Your task to perform on an android device: empty trash in google photos Image 0: 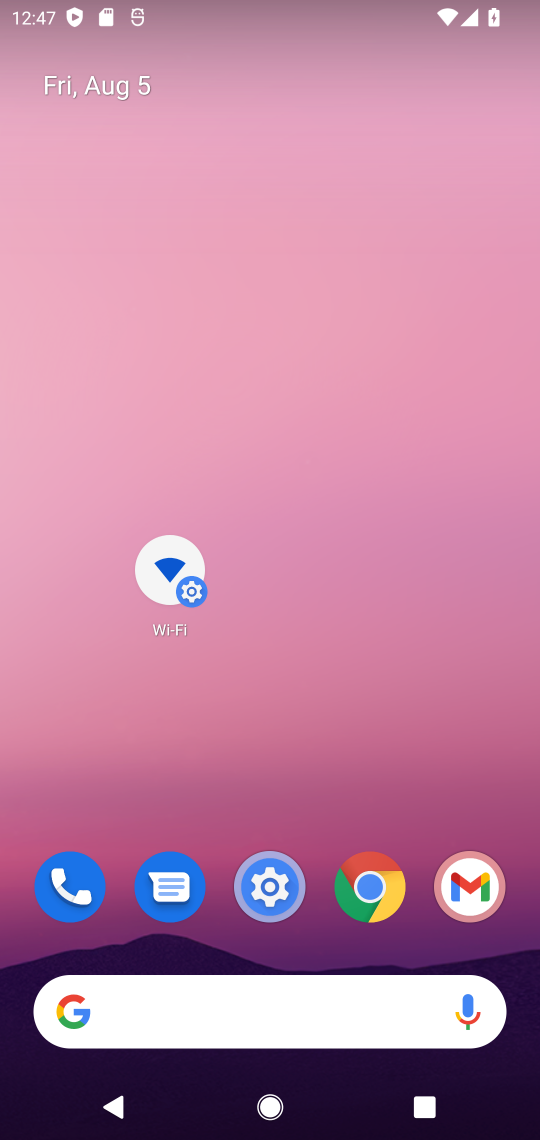
Step 0: drag from (352, 972) to (337, 38)
Your task to perform on an android device: empty trash in google photos Image 1: 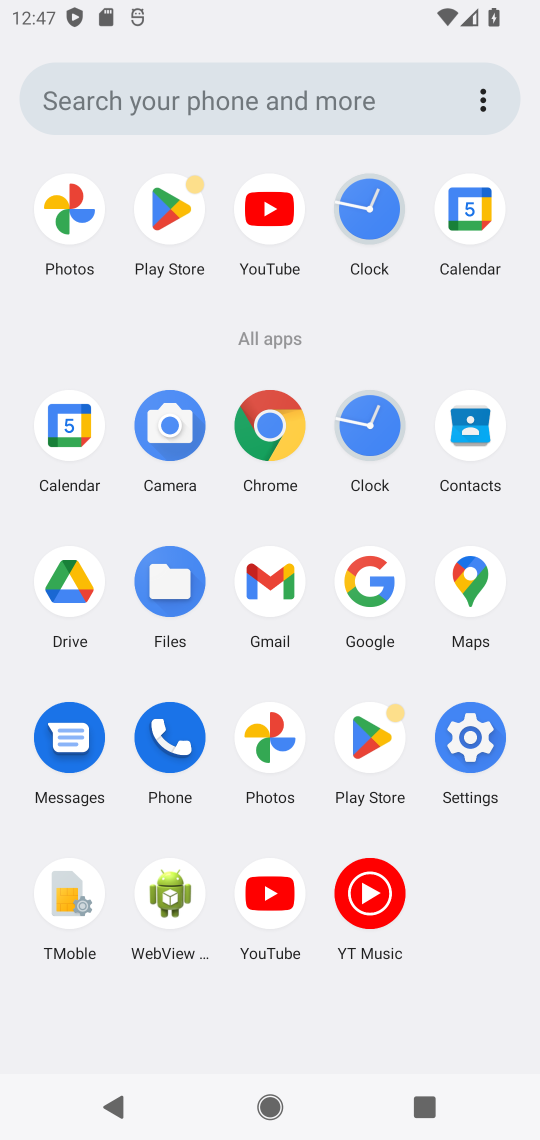
Step 1: click (271, 751)
Your task to perform on an android device: empty trash in google photos Image 2: 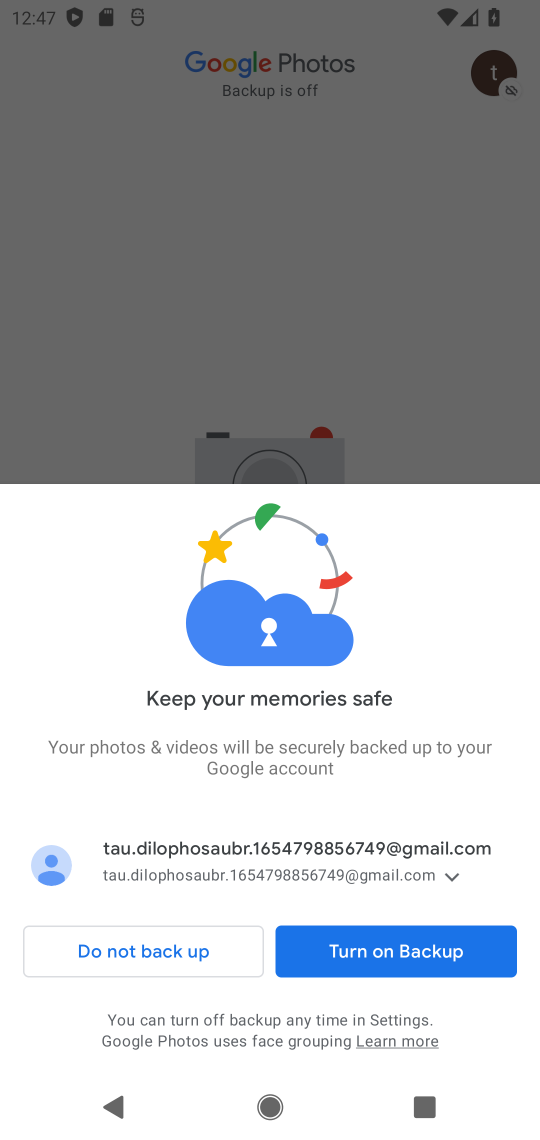
Step 2: click (383, 972)
Your task to perform on an android device: empty trash in google photos Image 3: 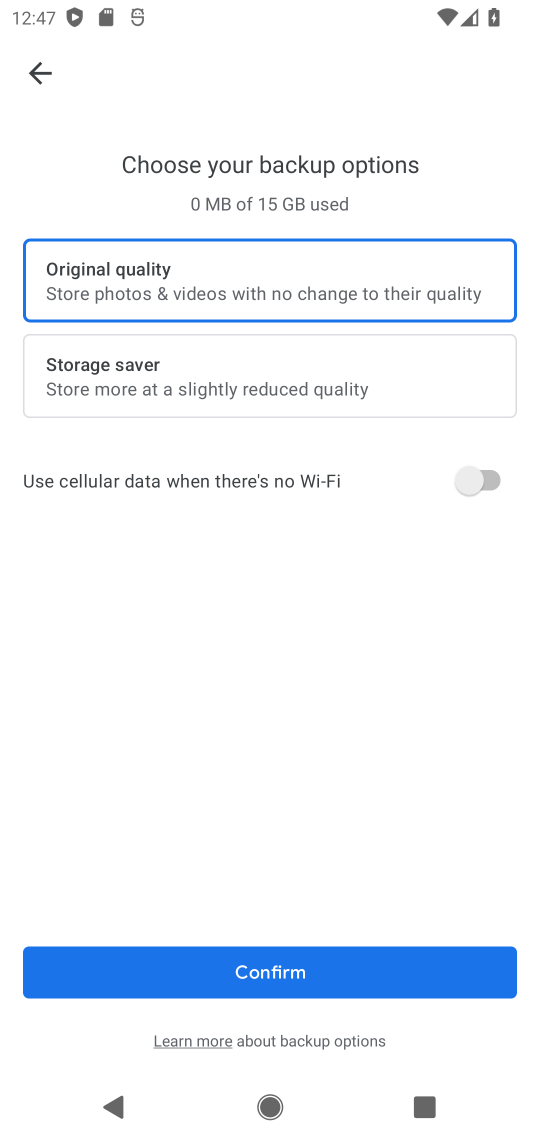
Step 3: click (224, 962)
Your task to perform on an android device: empty trash in google photos Image 4: 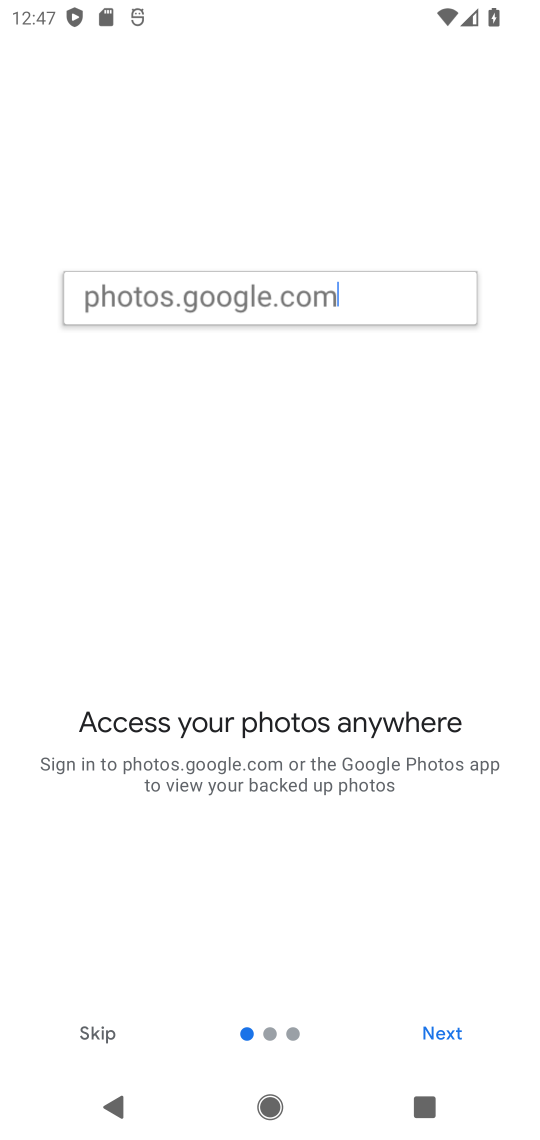
Step 4: click (95, 1027)
Your task to perform on an android device: empty trash in google photos Image 5: 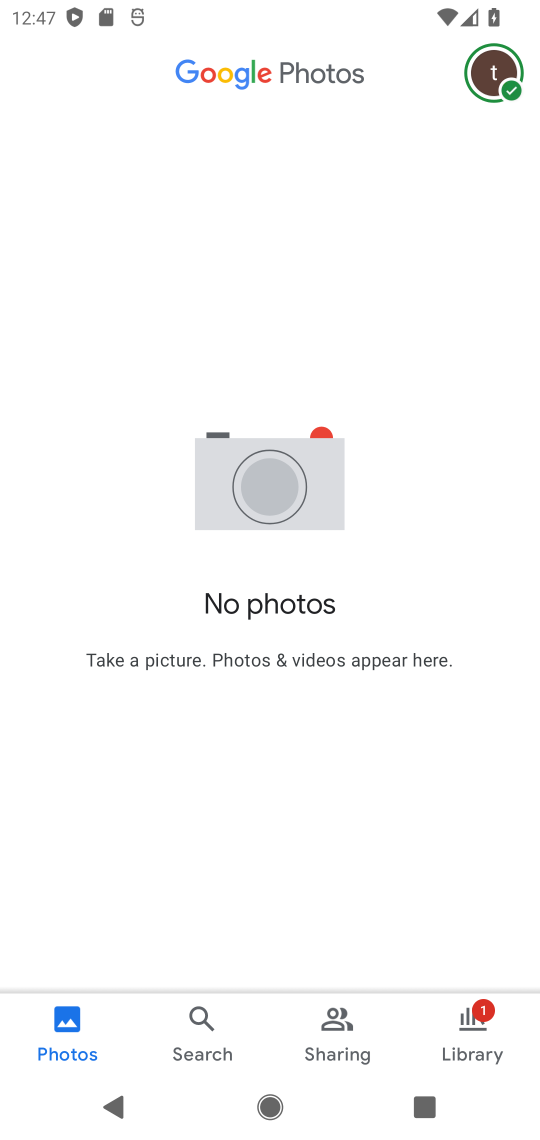
Step 5: click (452, 1033)
Your task to perform on an android device: empty trash in google photos Image 6: 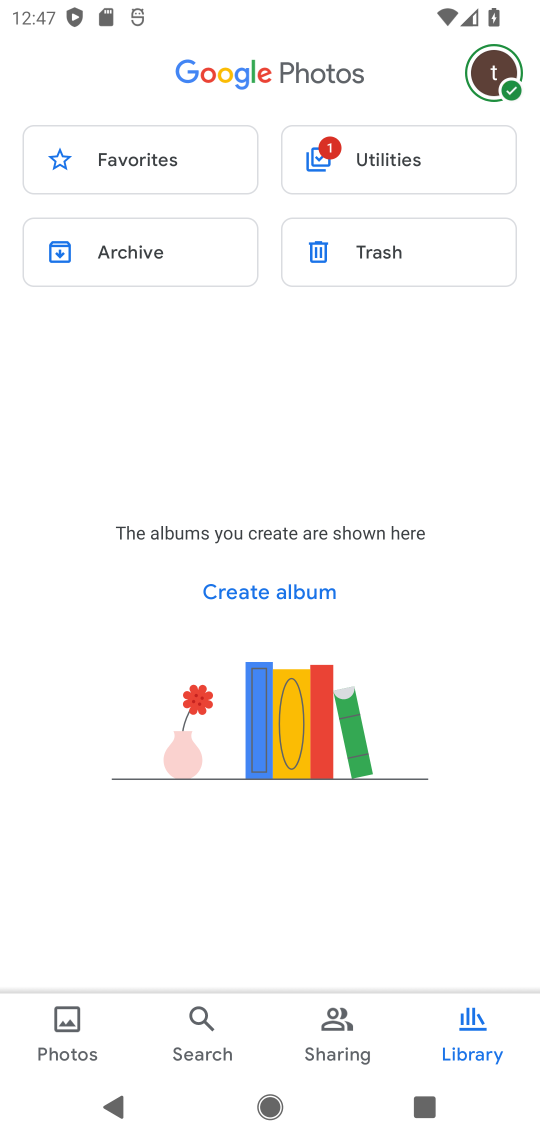
Step 6: click (313, 233)
Your task to perform on an android device: empty trash in google photos Image 7: 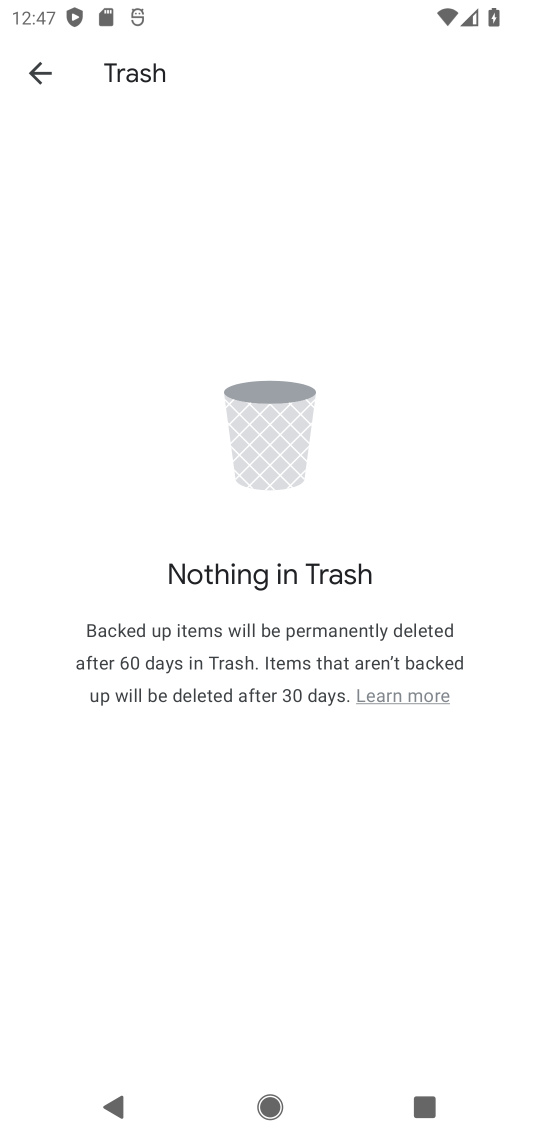
Step 7: task complete